Your task to perform on an android device: Go to Maps Image 0: 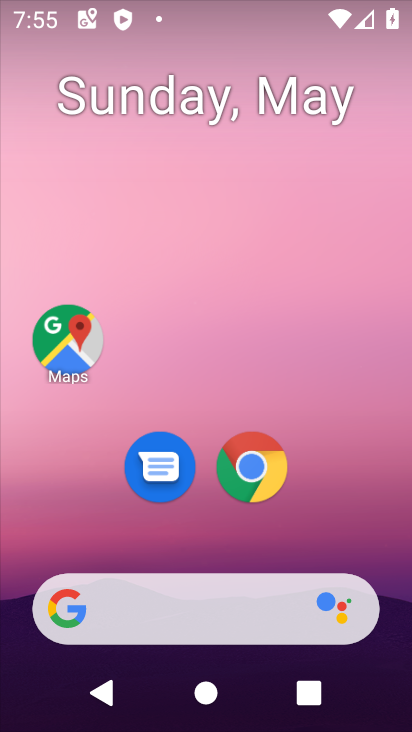
Step 0: click (48, 348)
Your task to perform on an android device: Go to Maps Image 1: 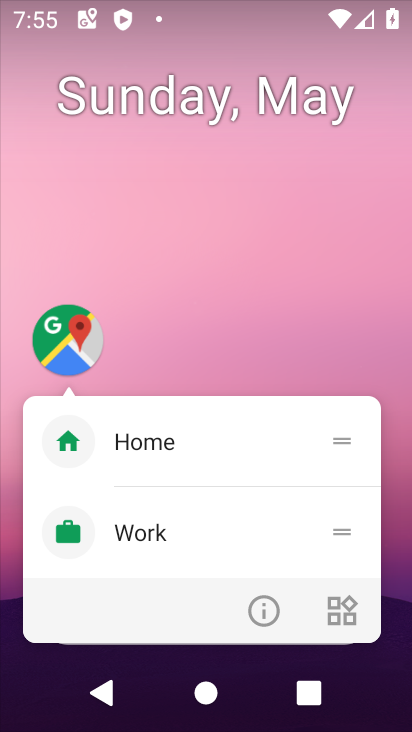
Step 1: click (59, 337)
Your task to perform on an android device: Go to Maps Image 2: 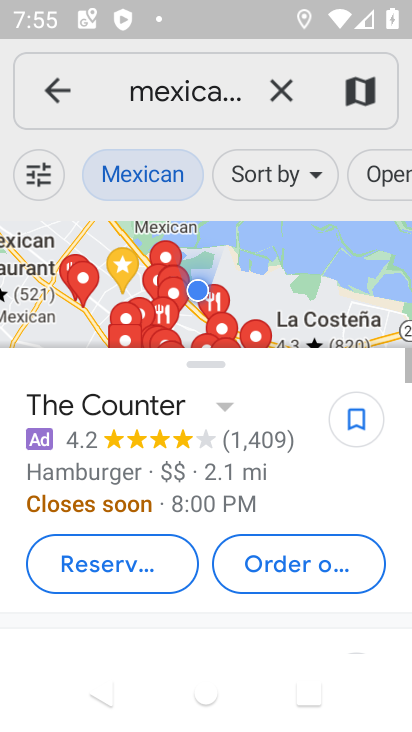
Step 2: click (279, 92)
Your task to perform on an android device: Go to Maps Image 3: 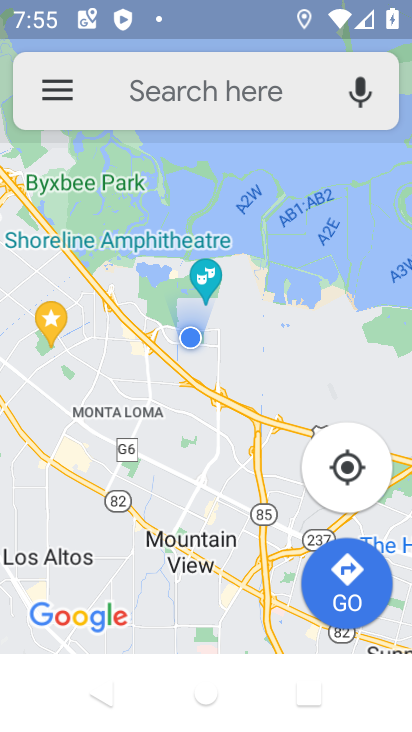
Step 3: task complete